Your task to perform on an android device: Search for vegetarian restaurants on Maps Image 0: 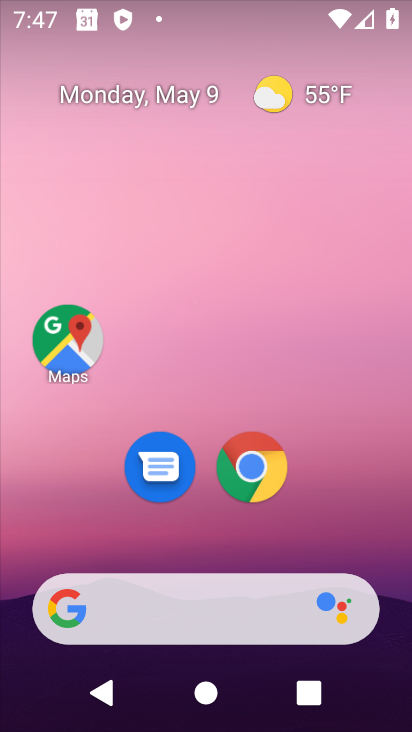
Step 0: click (63, 350)
Your task to perform on an android device: Search for vegetarian restaurants on Maps Image 1: 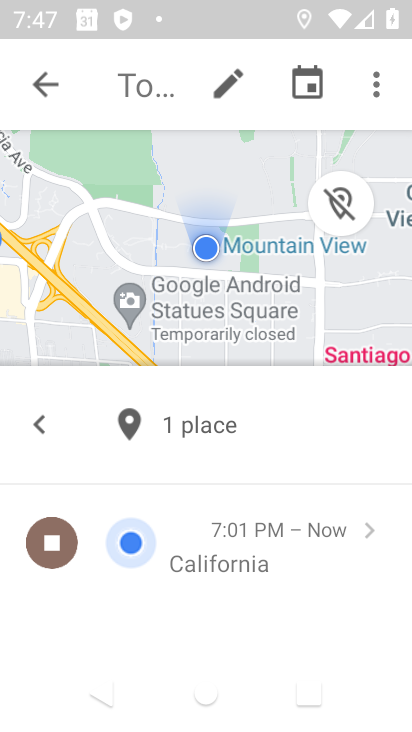
Step 1: click (40, 88)
Your task to perform on an android device: Search for vegetarian restaurants on Maps Image 2: 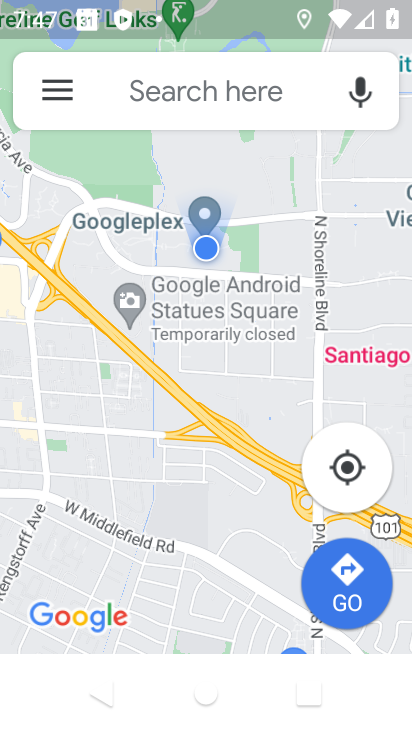
Step 2: click (141, 94)
Your task to perform on an android device: Search for vegetarian restaurants on Maps Image 3: 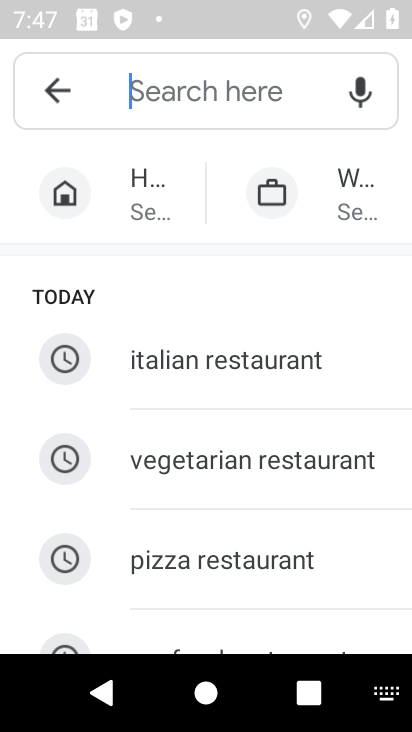
Step 3: type "vegetarian restaurant"
Your task to perform on an android device: Search for vegetarian restaurants on Maps Image 4: 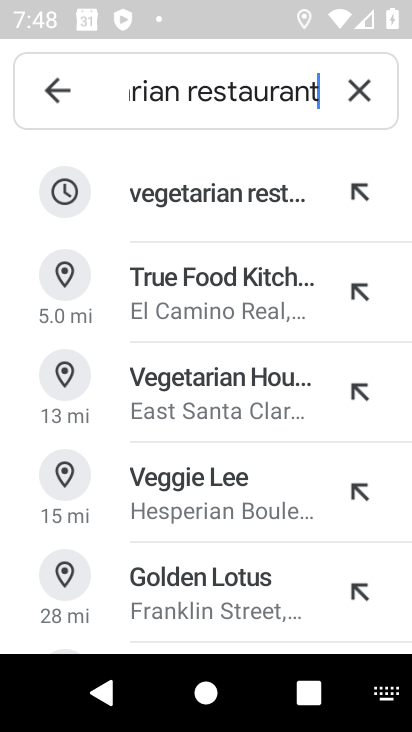
Step 4: click (209, 205)
Your task to perform on an android device: Search for vegetarian restaurants on Maps Image 5: 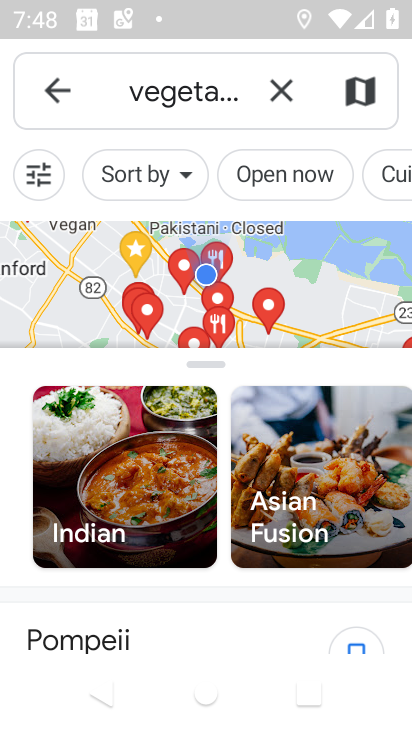
Step 5: task complete